Your task to perform on an android device: install app "Facebook Messenger" Image 0: 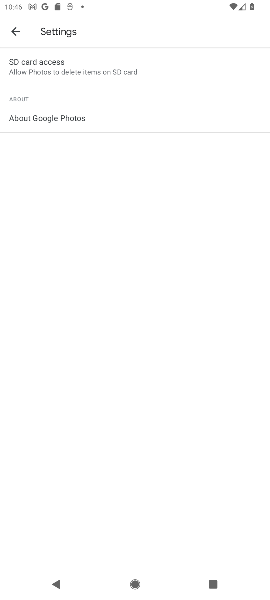
Step 0: press home button
Your task to perform on an android device: install app "Facebook Messenger" Image 1: 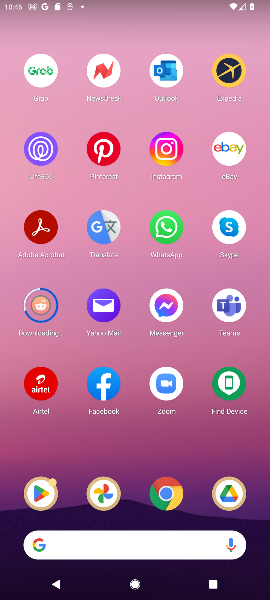
Step 1: click (49, 483)
Your task to perform on an android device: install app "Facebook Messenger" Image 2: 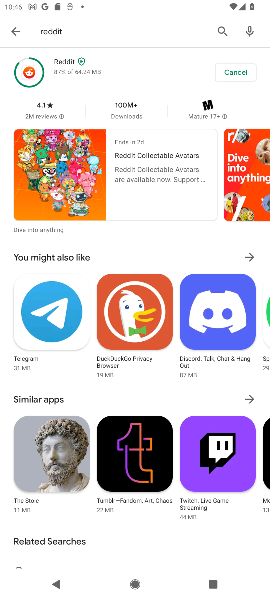
Step 2: click (226, 29)
Your task to perform on an android device: install app "Facebook Messenger" Image 3: 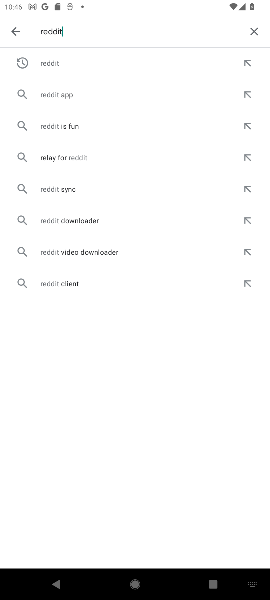
Step 3: click (225, 29)
Your task to perform on an android device: install app "Facebook Messenger" Image 4: 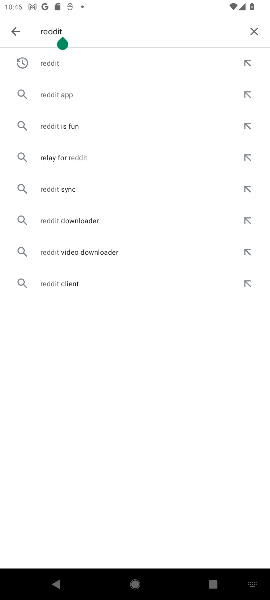
Step 4: click (247, 29)
Your task to perform on an android device: install app "Facebook Messenger" Image 5: 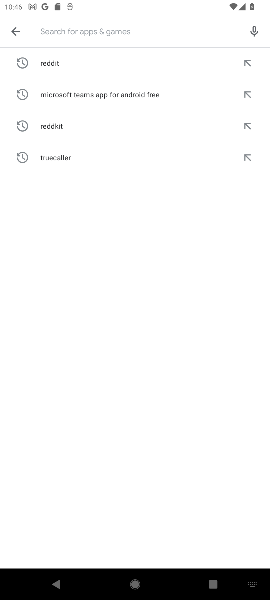
Step 5: type "facebook"
Your task to perform on an android device: install app "Facebook Messenger" Image 6: 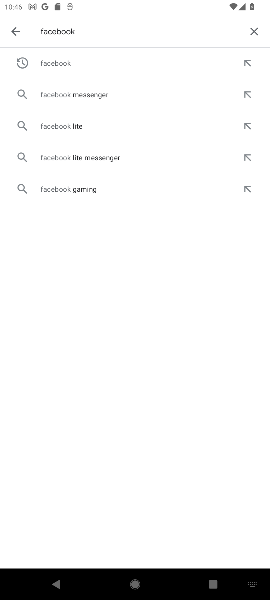
Step 6: click (75, 60)
Your task to perform on an android device: install app "Facebook Messenger" Image 7: 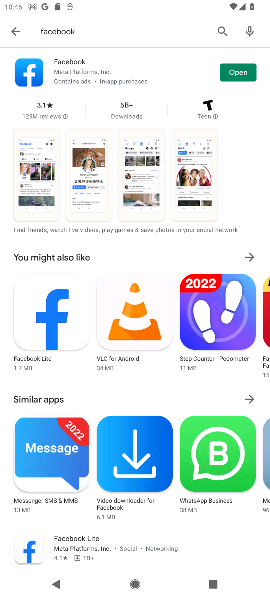
Step 7: click (247, 74)
Your task to perform on an android device: install app "Facebook Messenger" Image 8: 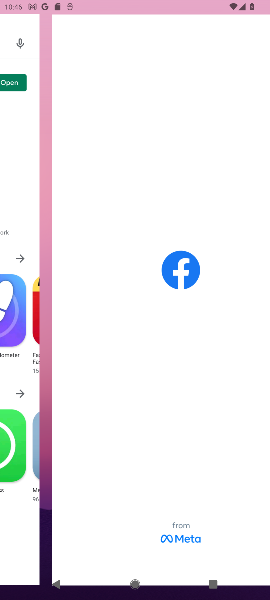
Step 8: task complete